Your task to perform on an android device: Turn off the flashlight Image 0: 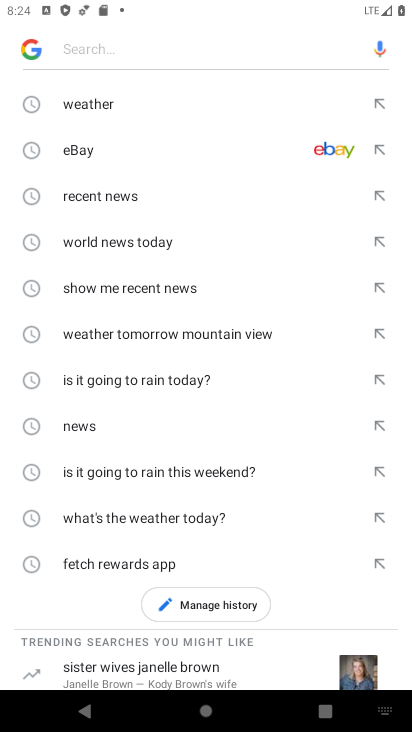
Step 0: press home button
Your task to perform on an android device: Turn off the flashlight Image 1: 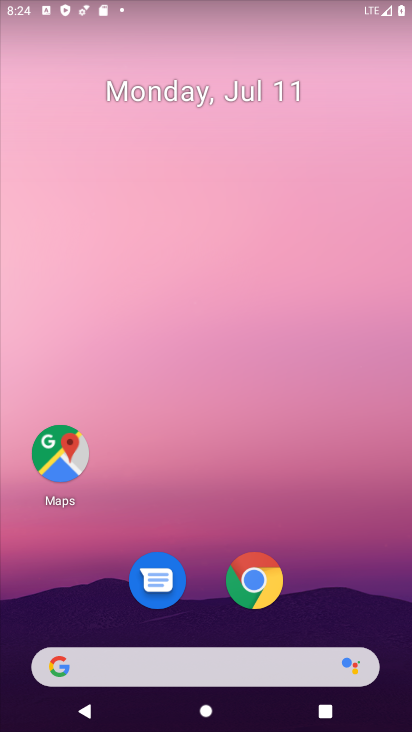
Step 1: drag from (219, 491) to (235, 1)
Your task to perform on an android device: Turn off the flashlight Image 2: 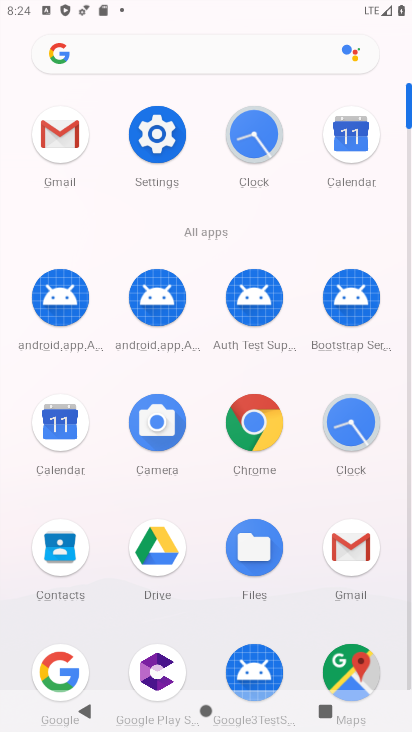
Step 2: click (164, 132)
Your task to perform on an android device: Turn off the flashlight Image 3: 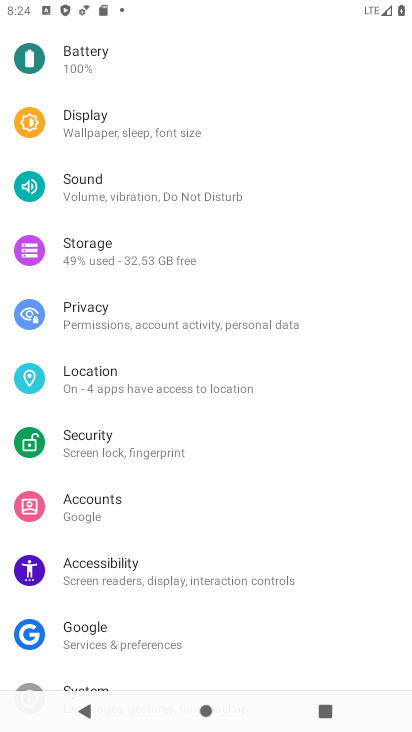
Step 3: drag from (221, 152) to (211, 592)
Your task to perform on an android device: Turn off the flashlight Image 4: 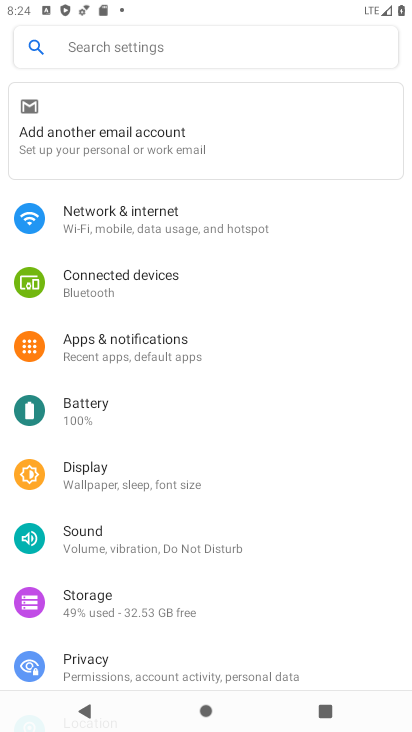
Step 4: click (254, 33)
Your task to perform on an android device: Turn off the flashlight Image 5: 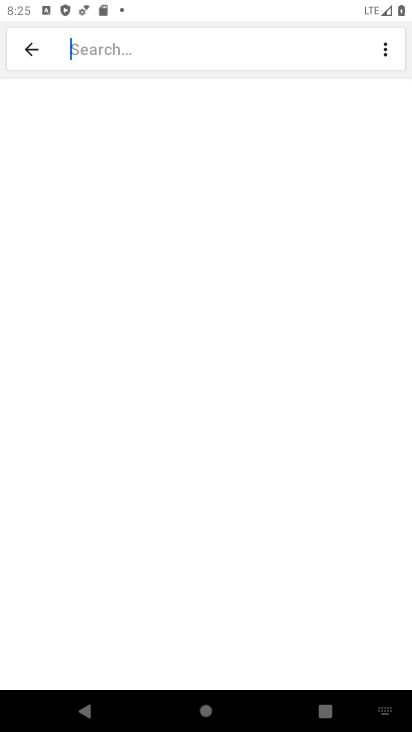
Step 5: type "flashlight"
Your task to perform on an android device: Turn off the flashlight Image 6: 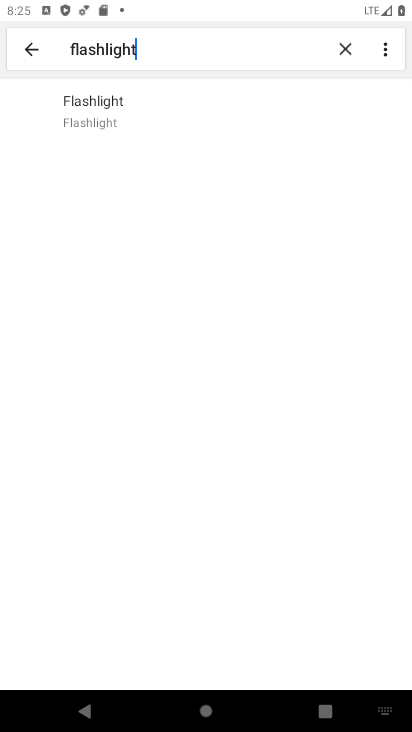
Step 6: click (86, 103)
Your task to perform on an android device: Turn off the flashlight Image 7: 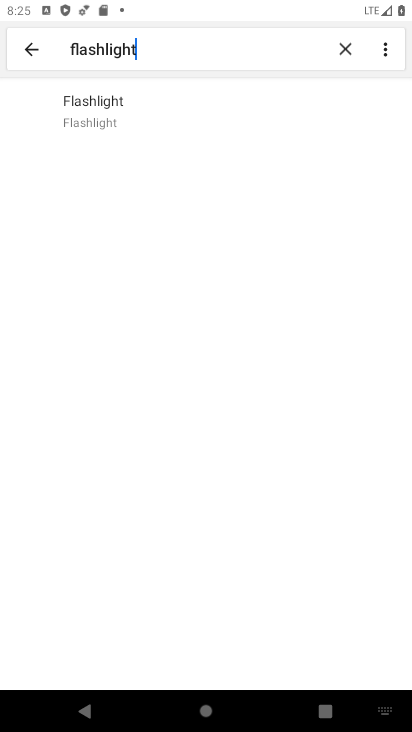
Step 7: click (90, 100)
Your task to perform on an android device: Turn off the flashlight Image 8: 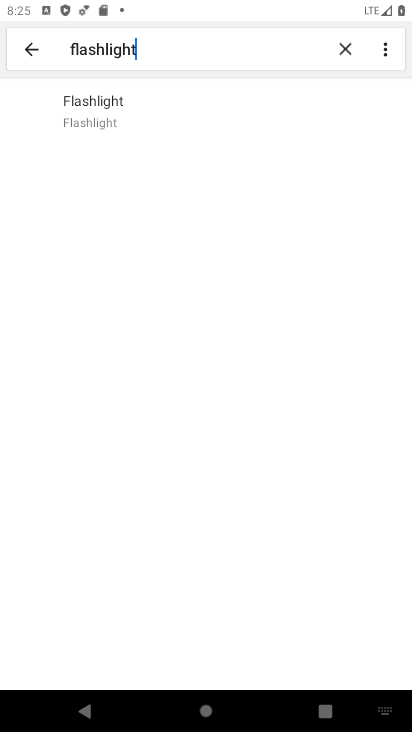
Step 8: task complete